Your task to perform on an android device: turn off translation in the chrome app Image 0: 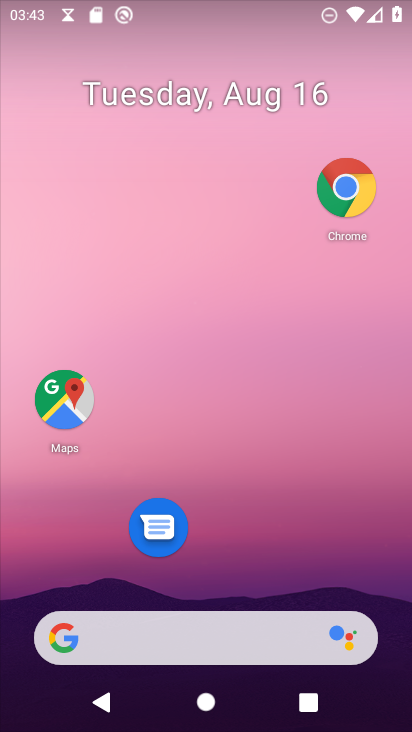
Step 0: press home button
Your task to perform on an android device: turn off translation in the chrome app Image 1: 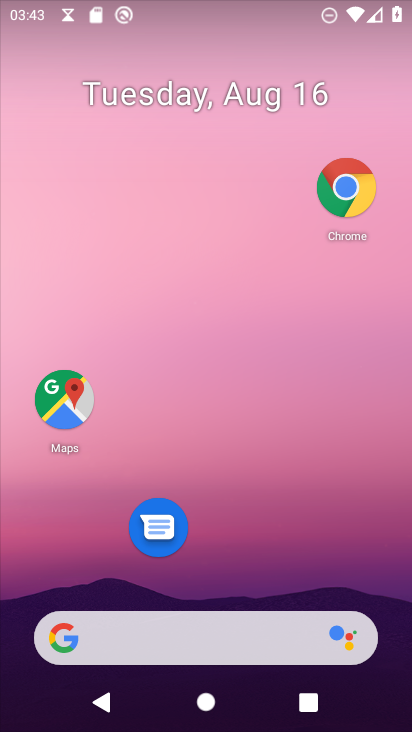
Step 1: drag from (250, 572) to (268, 244)
Your task to perform on an android device: turn off translation in the chrome app Image 2: 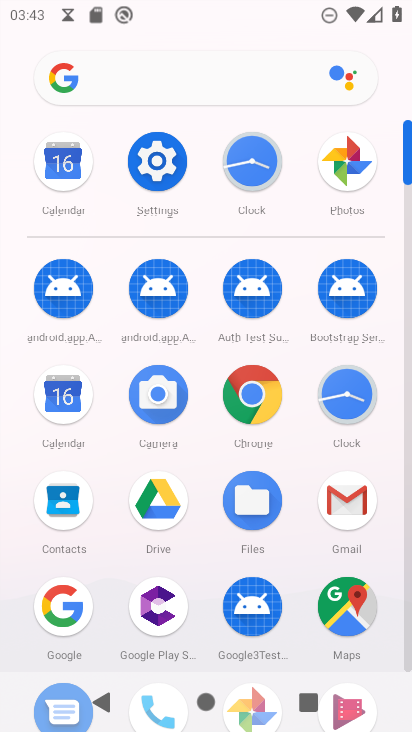
Step 2: click (249, 393)
Your task to perform on an android device: turn off translation in the chrome app Image 3: 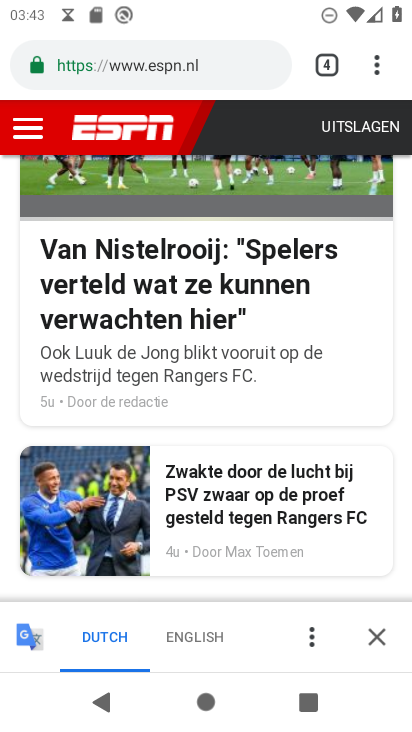
Step 3: click (375, 640)
Your task to perform on an android device: turn off translation in the chrome app Image 4: 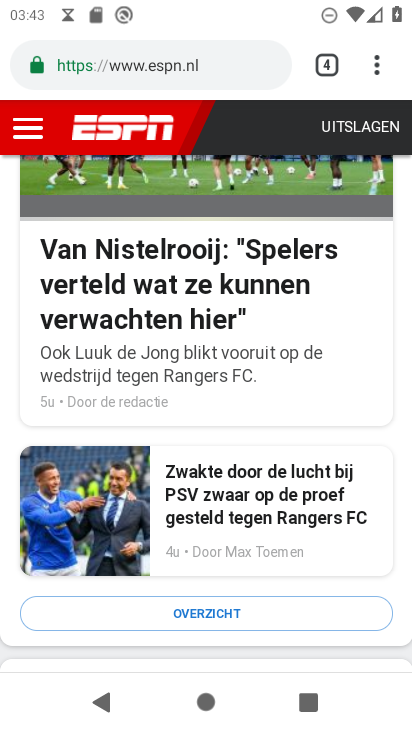
Step 4: drag from (216, 575) to (260, 106)
Your task to perform on an android device: turn off translation in the chrome app Image 5: 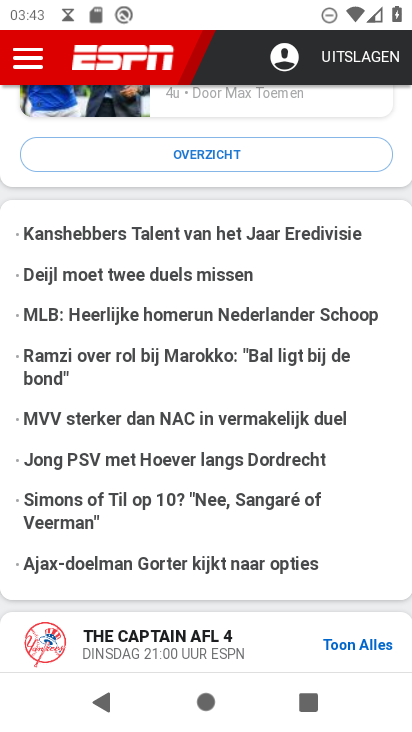
Step 5: drag from (202, 175) to (218, 556)
Your task to perform on an android device: turn off translation in the chrome app Image 6: 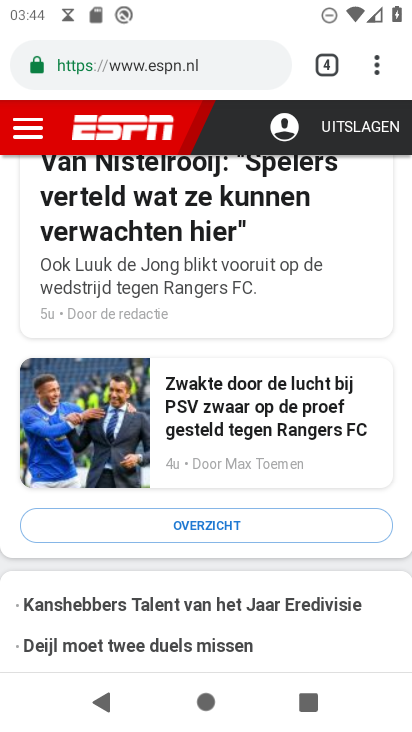
Step 6: click (378, 62)
Your task to perform on an android device: turn off translation in the chrome app Image 7: 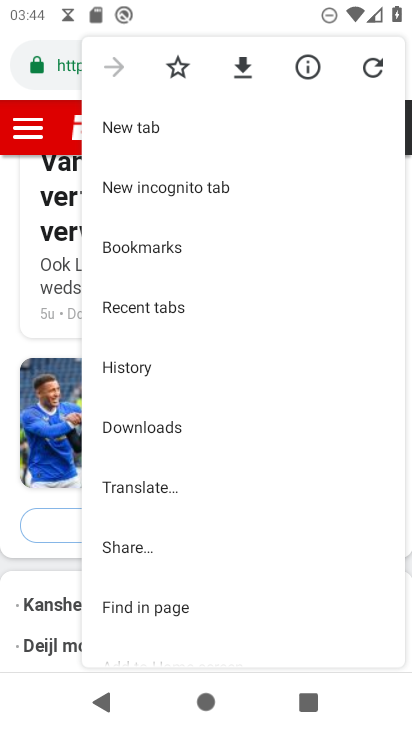
Step 7: drag from (179, 619) to (210, 252)
Your task to perform on an android device: turn off translation in the chrome app Image 8: 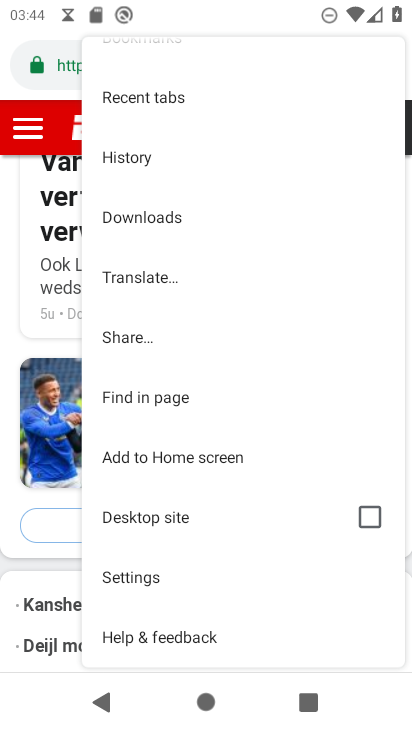
Step 8: click (160, 568)
Your task to perform on an android device: turn off translation in the chrome app Image 9: 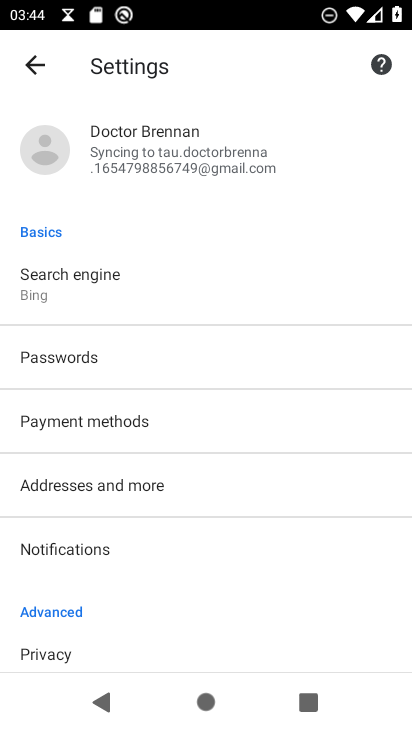
Step 9: drag from (151, 617) to (194, 166)
Your task to perform on an android device: turn off translation in the chrome app Image 10: 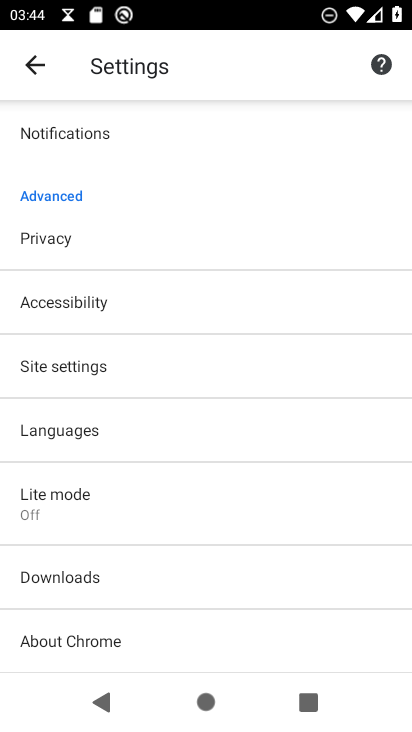
Step 10: click (104, 422)
Your task to perform on an android device: turn off translation in the chrome app Image 11: 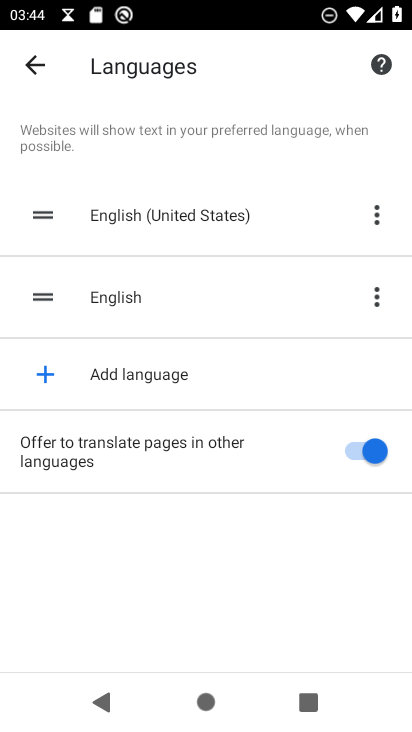
Step 11: click (354, 448)
Your task to perform on an android device: turn off translation in the chrome app Image 12: 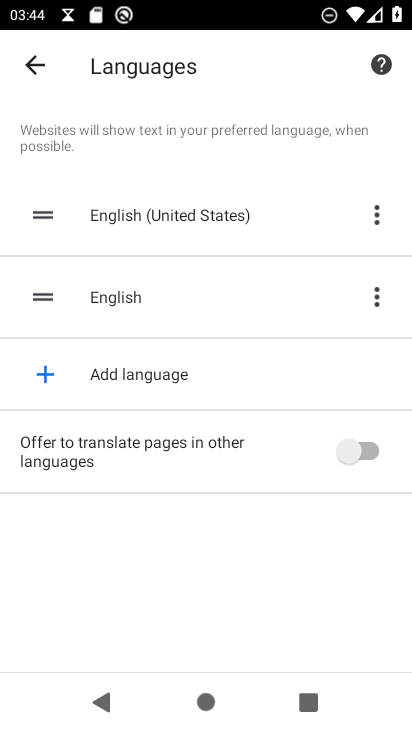
Step 12: task complete